Your task to perform on an android device: Open Yahoo.com Image 0: 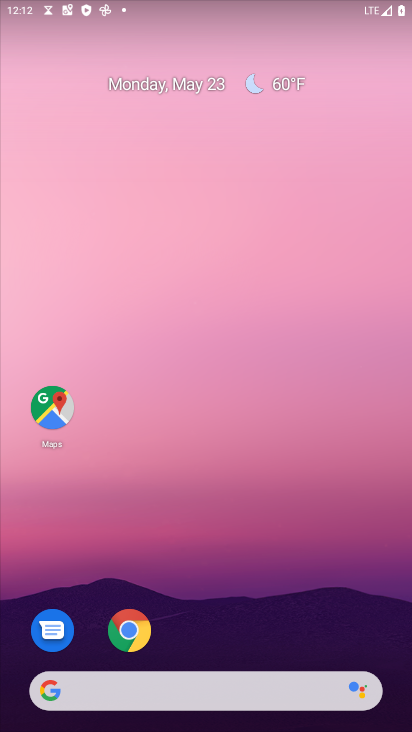
Step 0: click (131, 631)
Your task to perform on an android device: Open Yahoo.com Image 1: 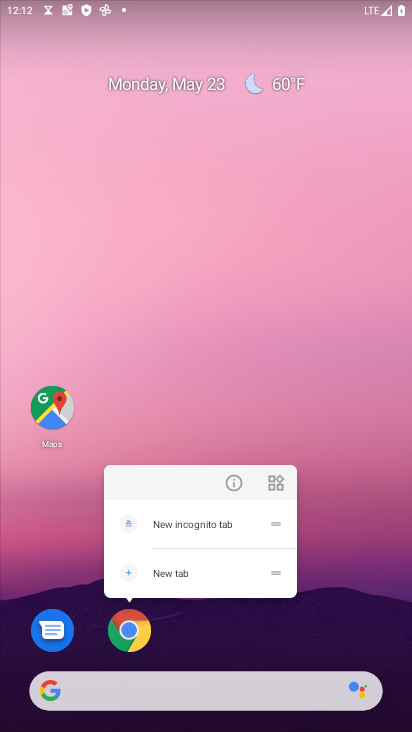
Step 1: click (129, 630)
Your task to perform on an android device: Open Yahoo.com Image 2: 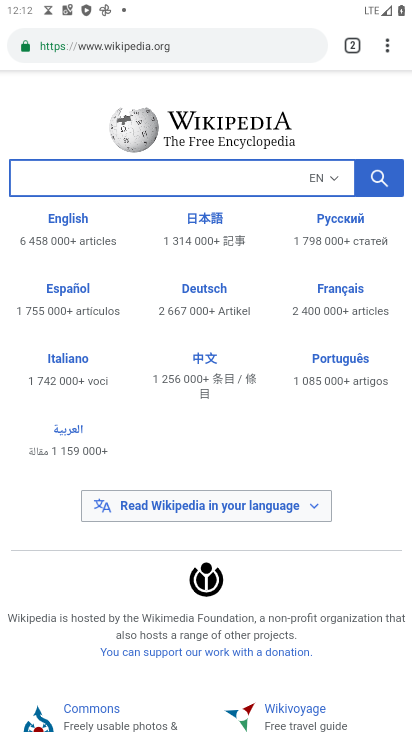
Step 2: click (226, 43)
Your task to perform on an android device: Open Yahoo.com Image 3: 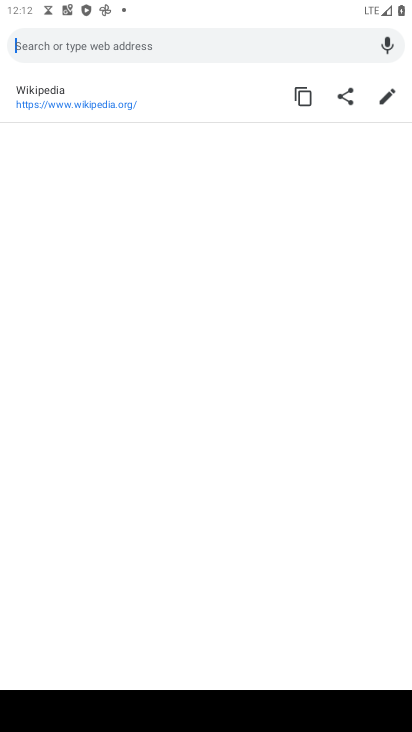
Step 3: type "Yahoo.com"
Your task to perform on an android device: Open Yahoo.com Image 4: 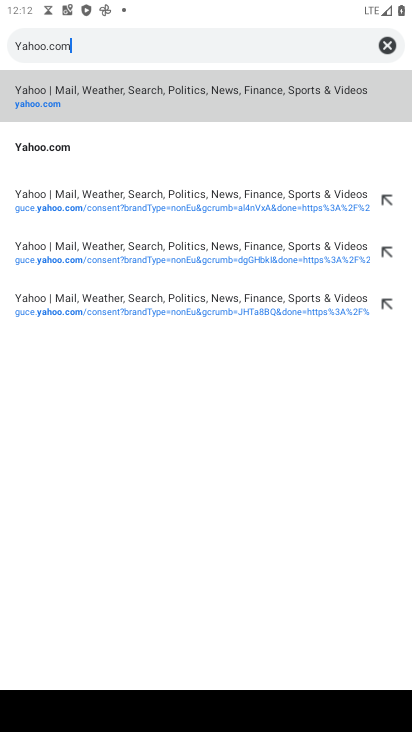
Step 4: click (64, 153)
Your task to perform on an android device: Open Yahoo.com Image 5: 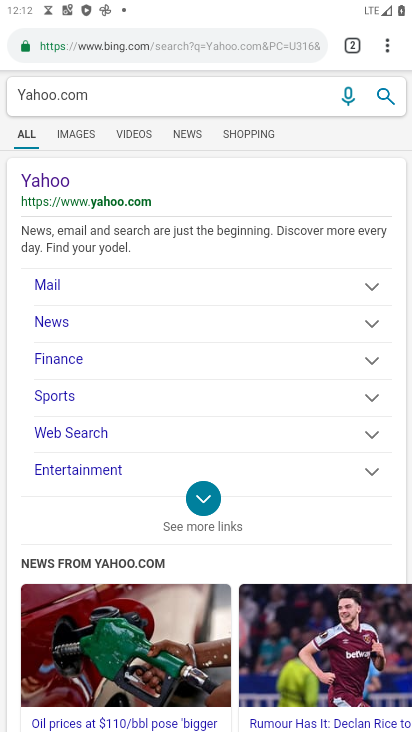
Step 5: click (66, 200)
Your task to perform on an android device: Open Yahoo.com Image 6: 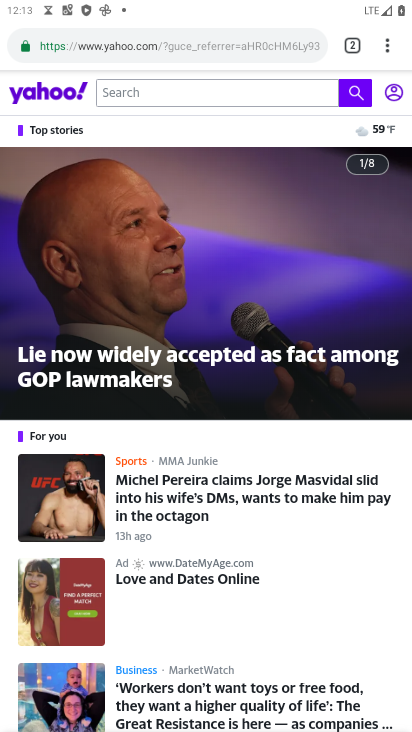
Step 6: task complete